Your task to perform on an android device: What's on my calendar tomorrow? Image 0: 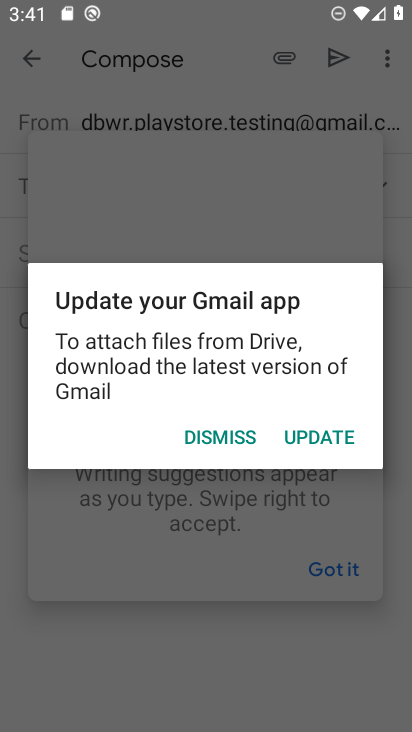
Step 0: press home button
Your task to perform on an android device: What's on my calendar tomorrow? Image 1: 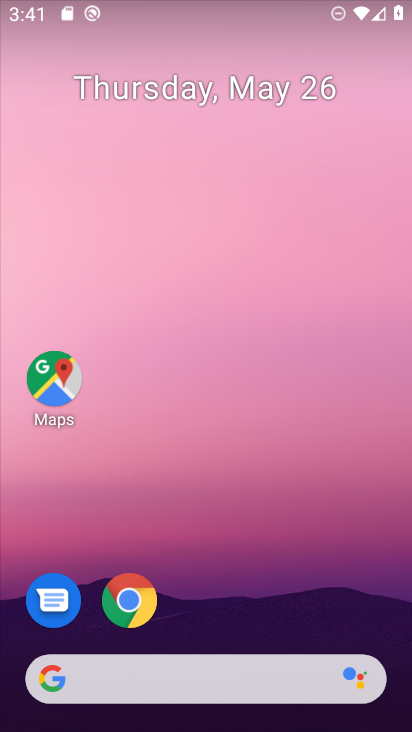
Step 1: drag from (267, 580) to (170, 45)
Your task to perform on an android device: What's on my calendar tomorrow? Image 2: 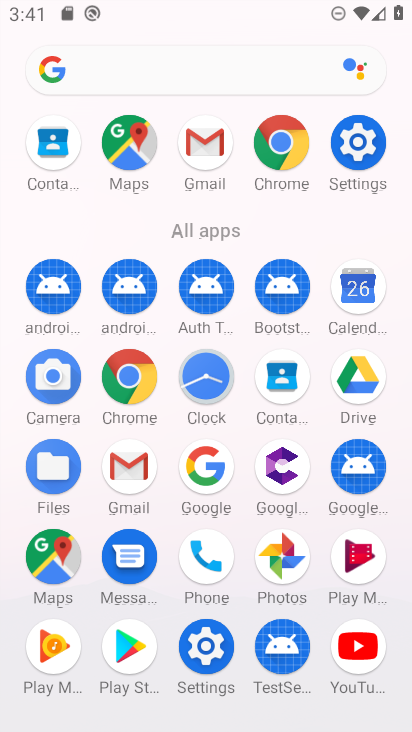
Step 2: drag from (16, 600) to (2, 343)
Your task to perform on an android device: What's on my calendar tomorrow? Image 3: 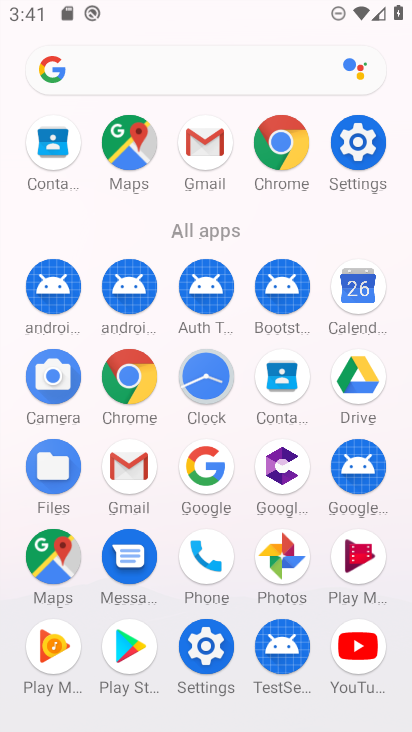
Step 3: click (361, 278)
Your task to perform on an android device: What's on my calendar tomorrow? Image 4: 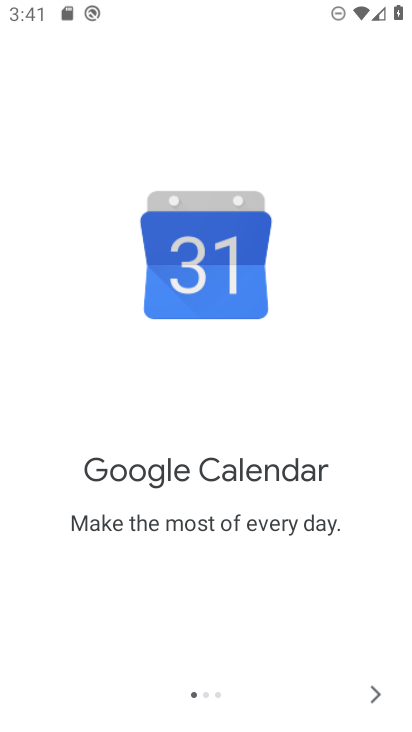
Step 4: click (375, 686)
Your task to perform on an android device: What's on my calendar tomorrow? Image 5: 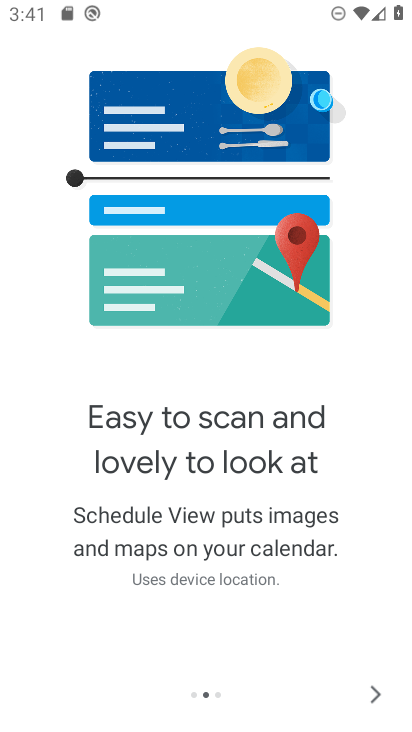
Step 5: click (362, 710)
Your task to perform on an android device: What's on my calendar tomorrow? Image 6: 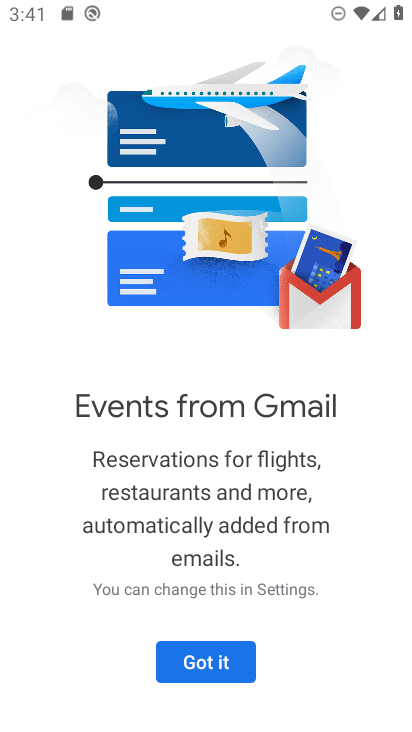
Step 6: click (221, 666)
Your task to perform on an android device: What's on my calendar tomorrow? Image 7: 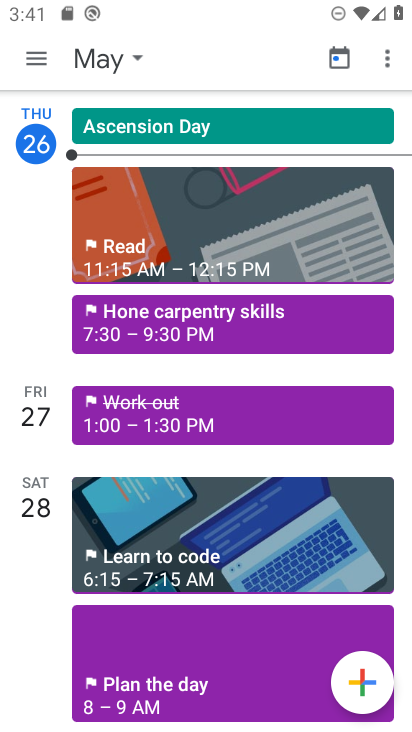
Step 7: click (113, 63)
Your task to perform on an android device: What's on my calendar tomorrow? Image 8: 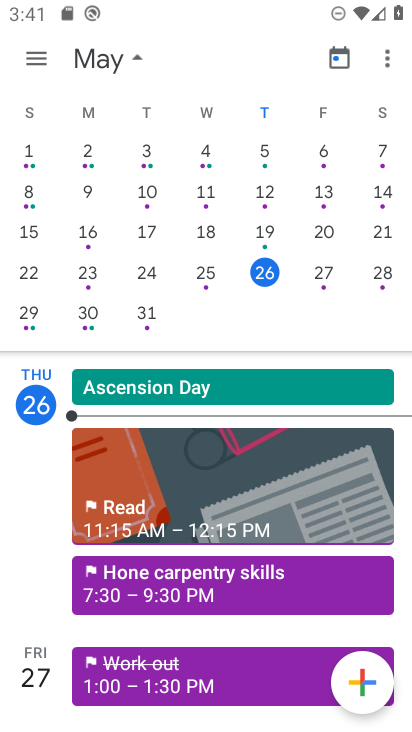
Step 8: click (310, 275)
Your task to perform on an android device: What's on my calendar tomorrow? Image 9: 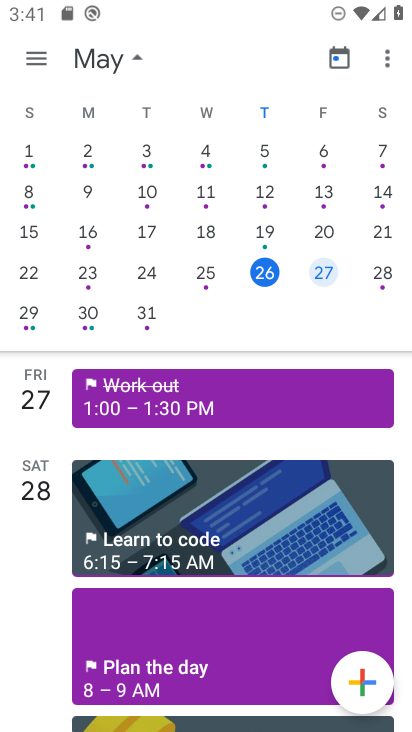
Step 9: click (35, 44)
Your task to perform on an android device: What's on my calendar tomorrow? Image 10: 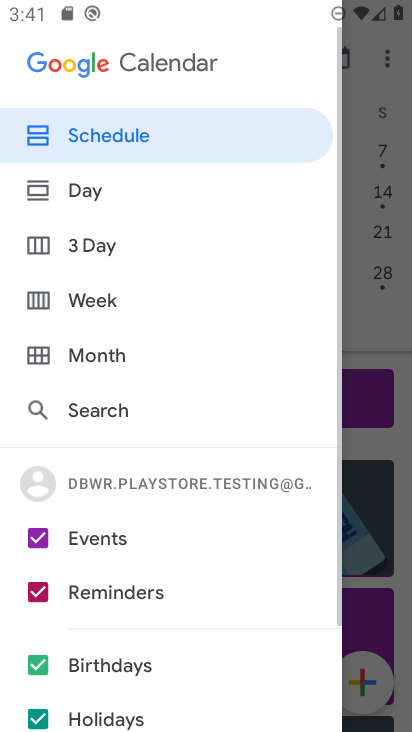
Step 10: click (93, 294)
Your task to perform on an android device: What's on my calendar tomorrow? Image 11: 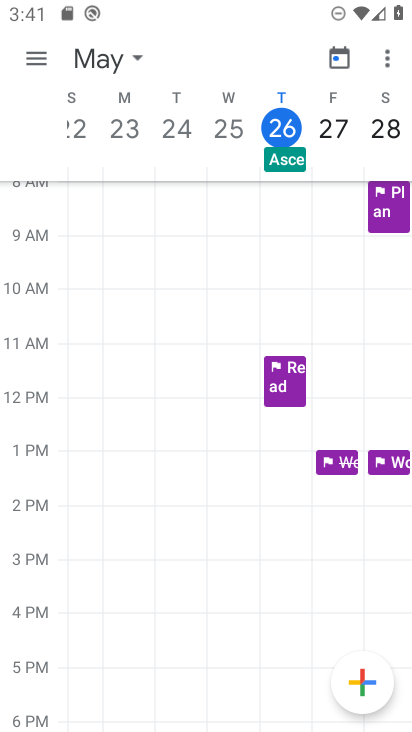
Step 11: click (33, 60)
Your task to perform on an android device: What's on my calendar tomorrow? Image 12: 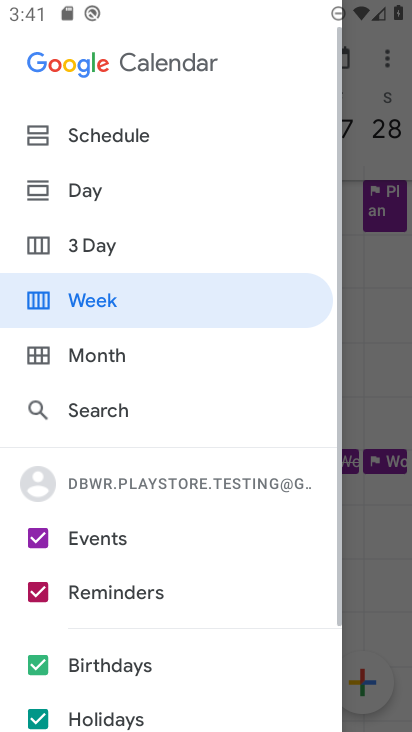
Step 12: click (91, 199)
Your task to perform on an android device: What's on my calendar tomorrow? Image 13: 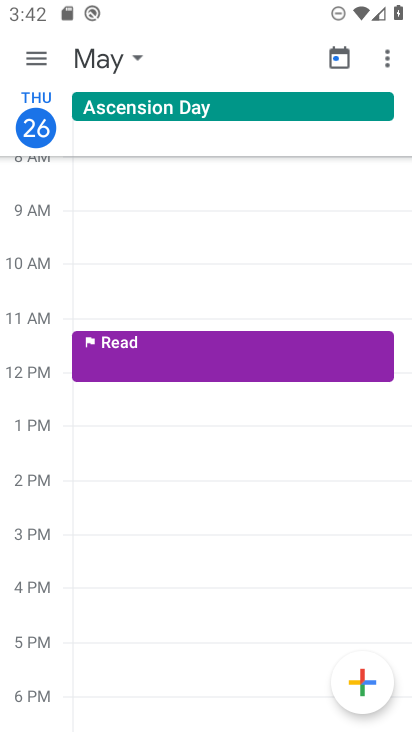
Step 13: task complete